Your task to perform on an android device: Search for the best selling books Image 0: 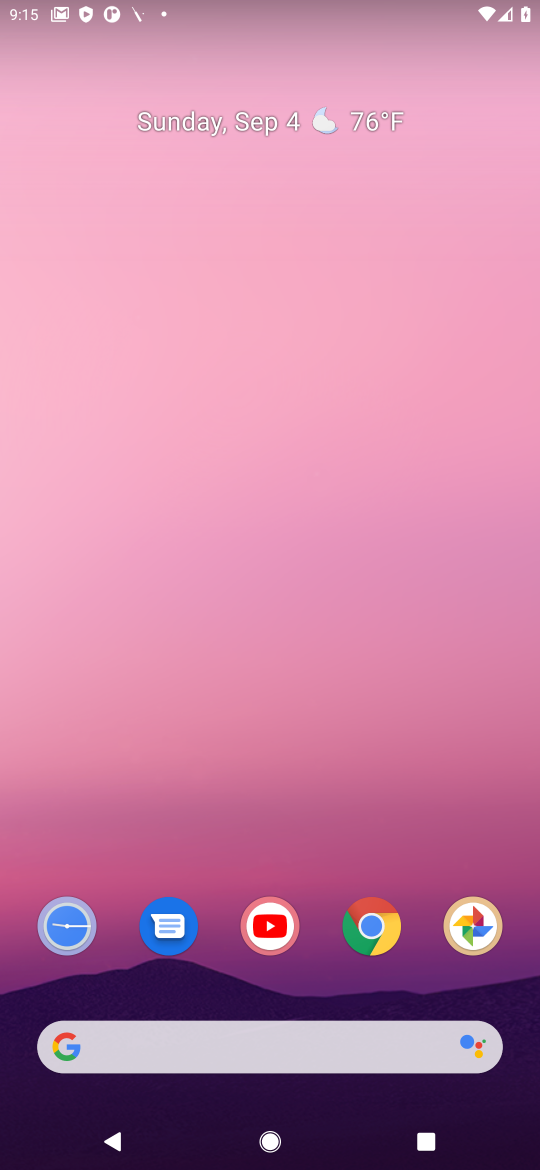
Step 0: click (228, 1048)
Your task to perform on an android device: Search for the best selling books Image 1: 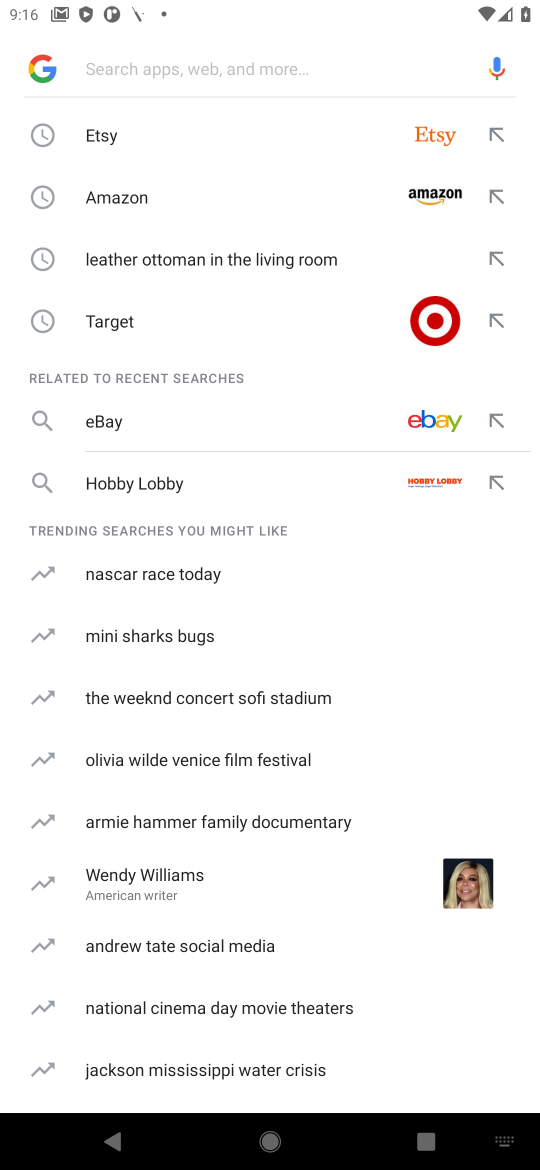
Step 1: type "best selling books"
Your task to perform on an android device: Search for the best selling books Image 2: 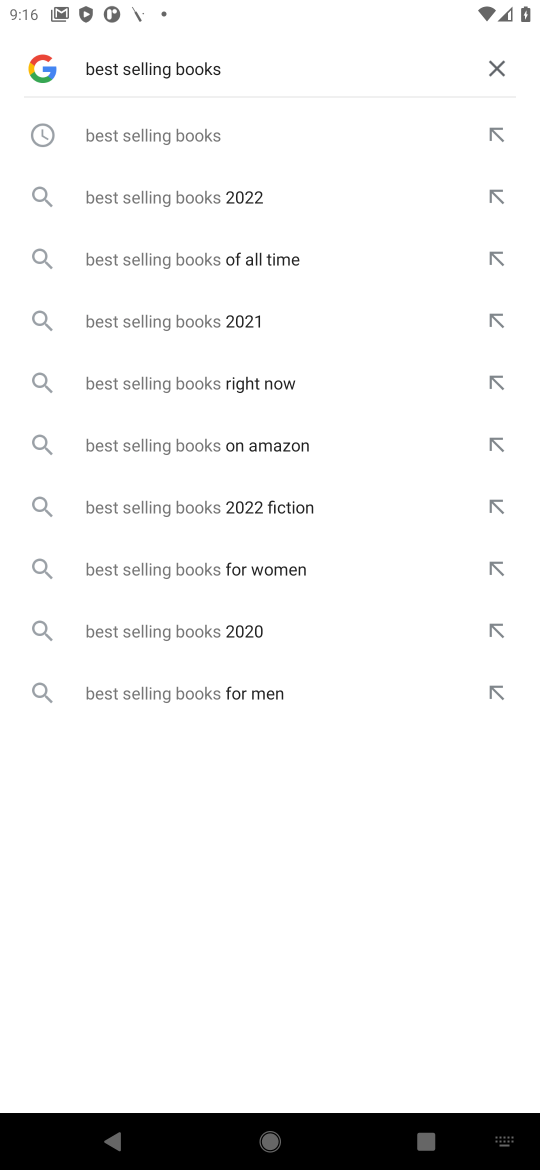
Step 2: click (210, 139)
Your task to perform on an android device: Search for the best selling books Image 3: 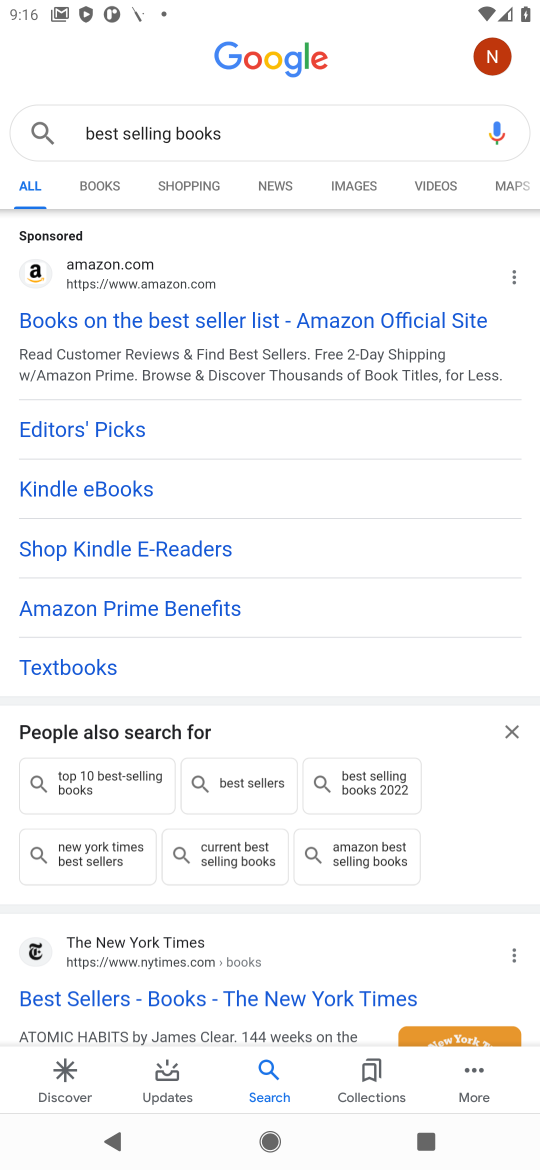
Step 3: click (136, 313)
Your task to perform on an android device: Search for the best selling books Image 4: 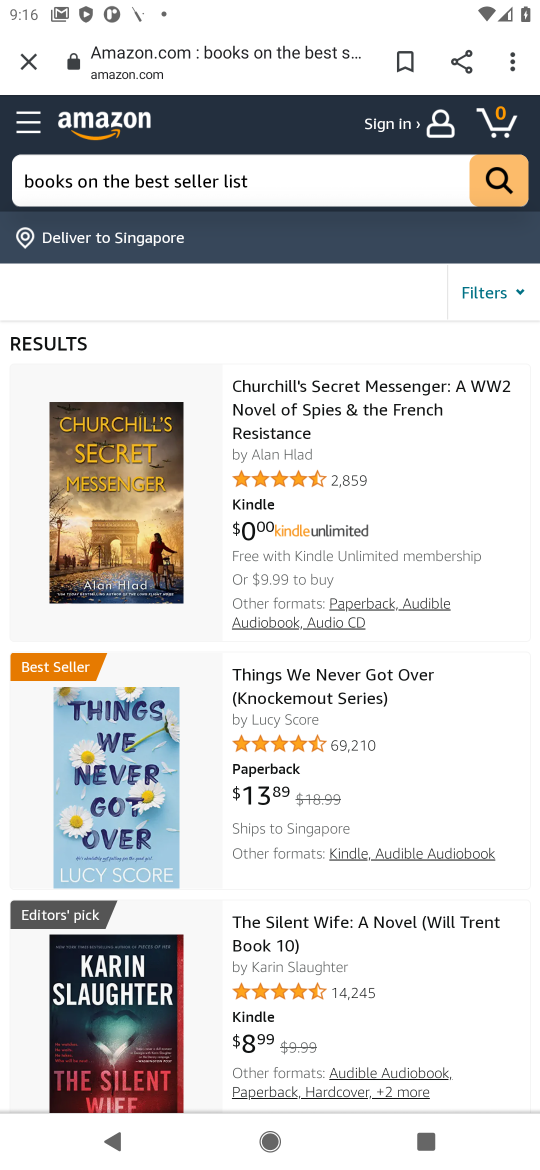
Step 4: task complete